Your task to perform on an android device: Set the phone to "Do not disturb". Image 0: 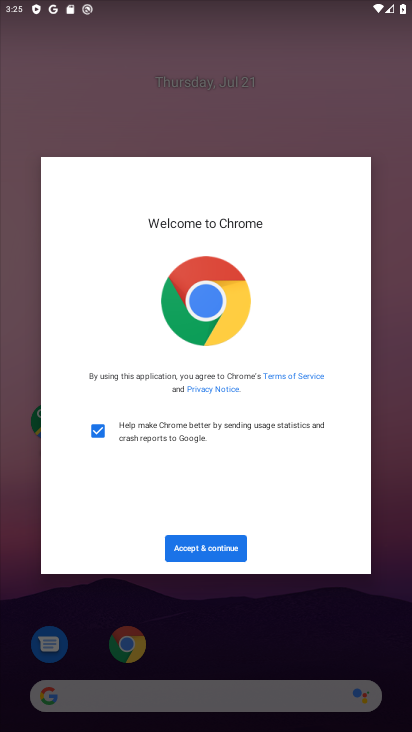
Step 0: press home button
Your task to perform on an android device: Set the phone to "Do not disturb". Image 1: 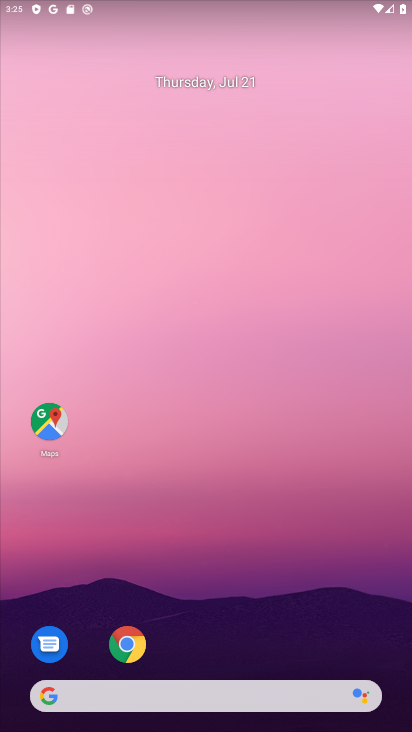
Step 1: drag from (176, 5) to (123, 339)
Your task to perform on an android device: Set the phone to "Do not disturb". Image 2: 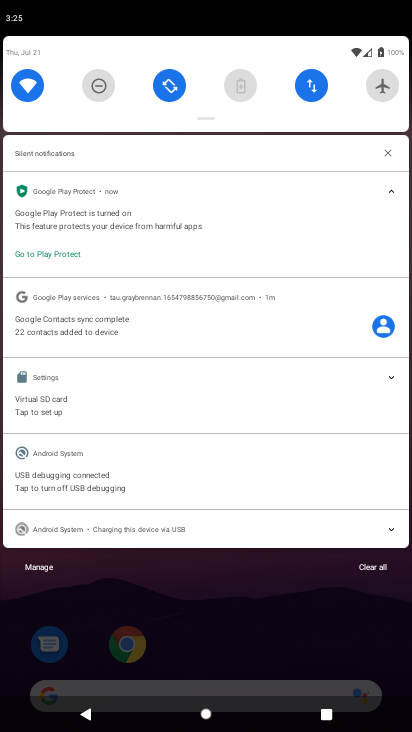
Step 2: click (95, 91)
Your task to perform on an android device: Set the phone to "Do not disturb". Image 3: 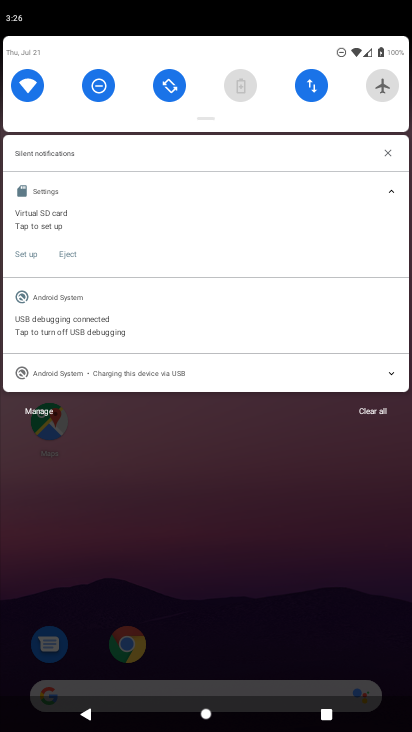
Step 3: task complete